Your task to perform on an android device: find which apps use the phone's location Image 0: 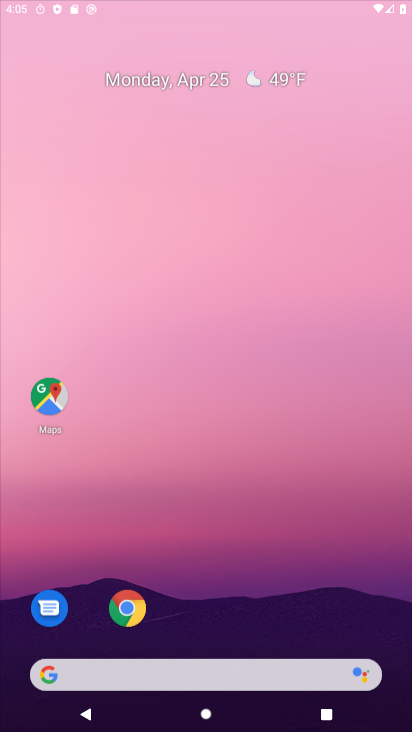
Step 0: drag from (240, 572) to (282, 270)
Your task to perform on an android device: find which apps use the phone's location Image 1: 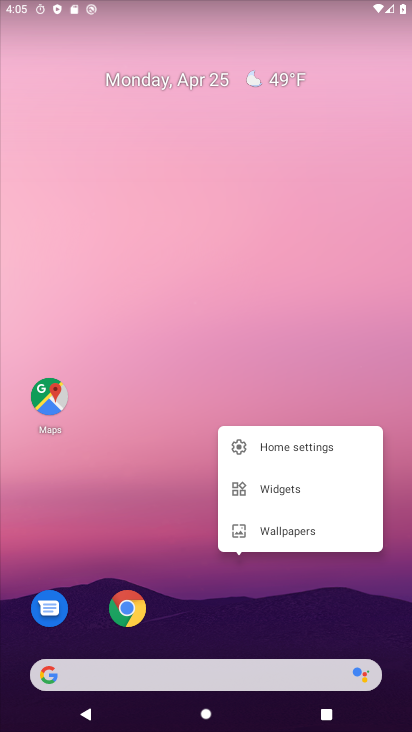
Step 1: drag from (155, 624) to (181, 260)
Your task to perform on an android device: find which apps use the phone's location Image 2: 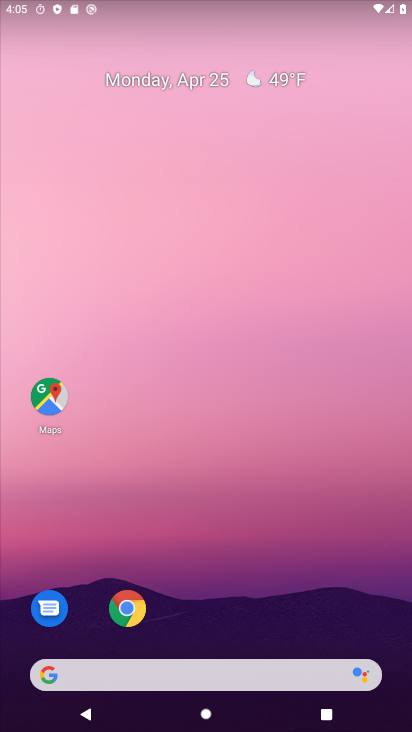
Step 2: drag from (237, 539) to (276, 209)
Your task to perform on an android device: find which apps use the phone's location Image 3: 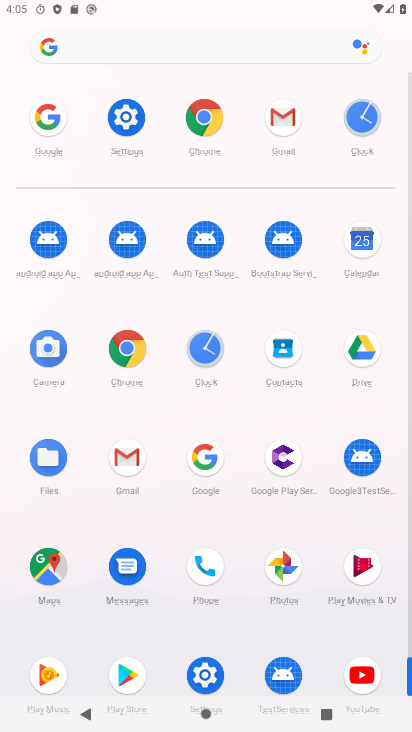
Step 3: click (136, 138)
Your task to perform on an android device: find which apps use the phone's location Image 4: 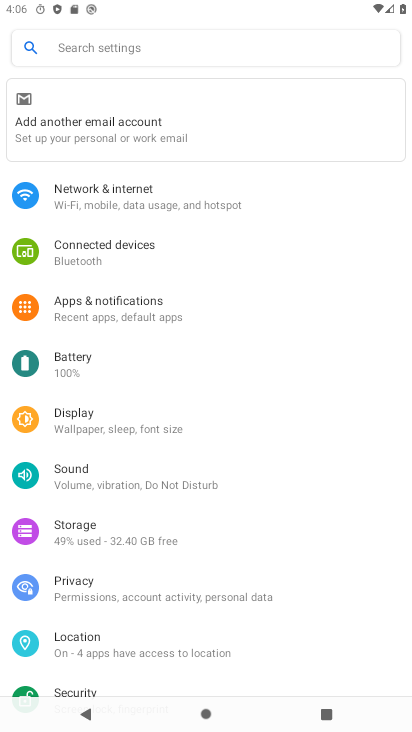
Step 4: click (85, 645)
Your task to perform on an android device: find which apps use the phone's location Image 5: 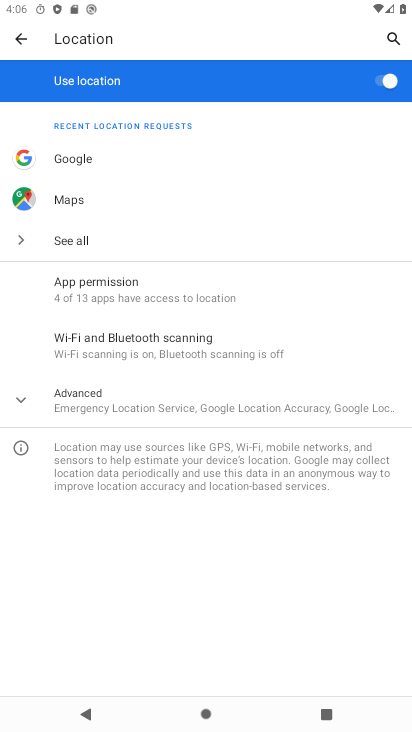
Step 5: click (116, 294)
Your task to perform on an android device: find which apps use the phone's location Image 6: 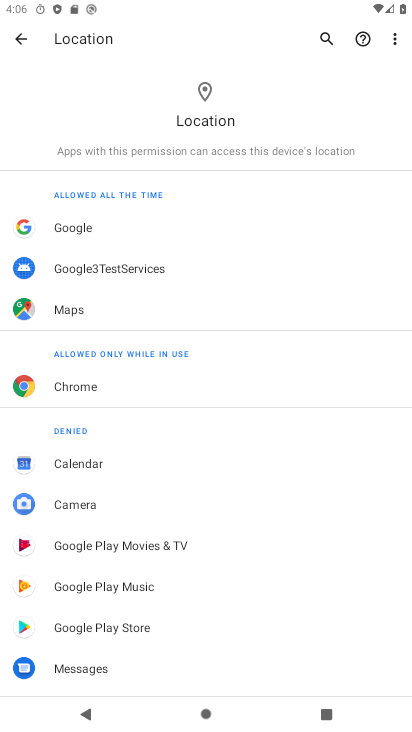
Step 6: task complete